Your task to perform on an android device: Search for sushi restaurants on Maps Image 0: 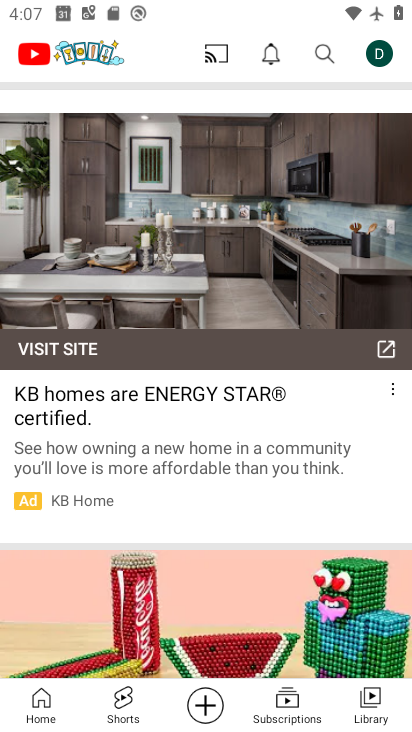
Step 0: press home button
Your task to perform on an android device: Search for sushi restaurants on Maps Image 1: 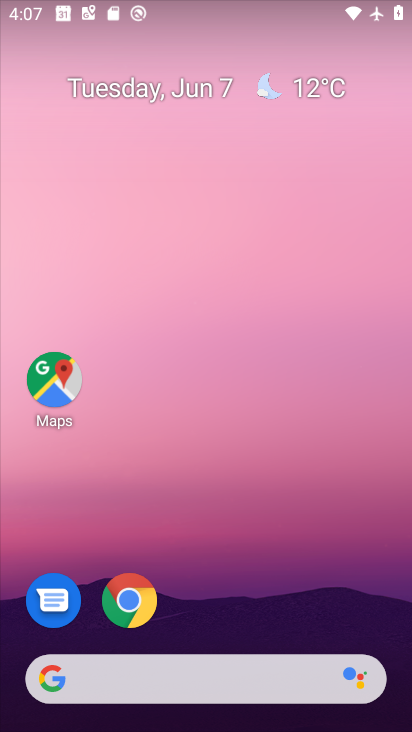
Step 1: click (48, 391)
Your task to perform on an android device: Search for sushi restaurants on Maps Image 2: 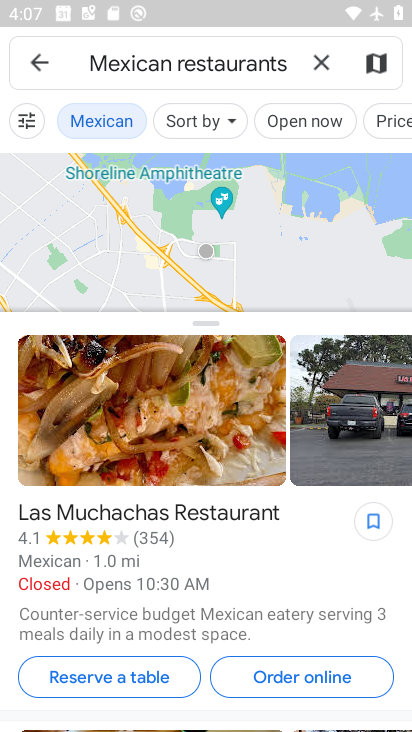
Step 2: click (328, 60)
Your task to perform on an android device: Search for sushi restaurants on Maps Image 3: 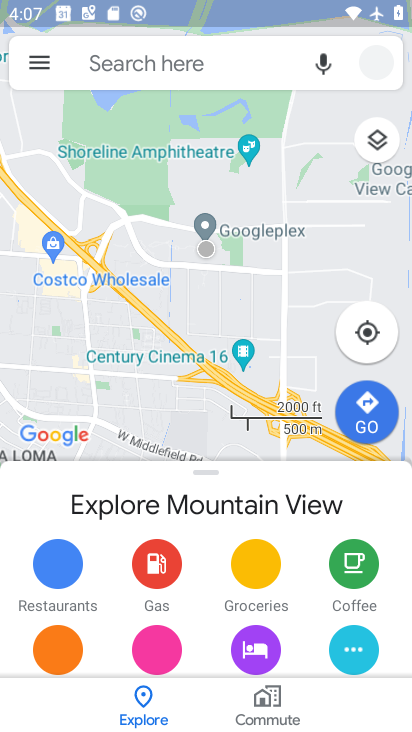
Step 3: click (290, 63)
Your task to perform on an android device: Search for sushi restaurants on Maps Image 4: 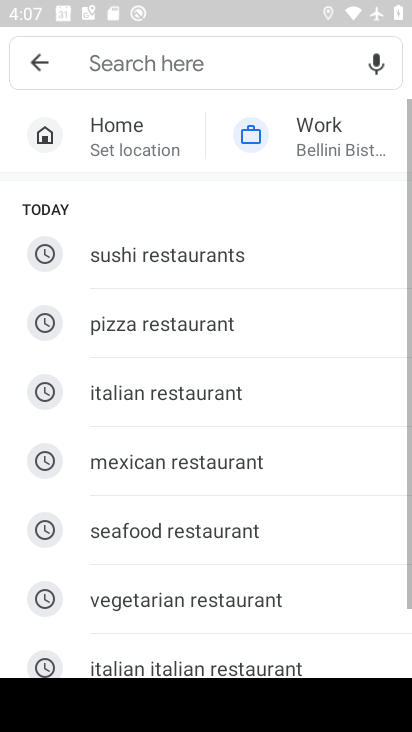
Step 4: click (244, 251)
Your task to perform on an android device: Search for sushi restaurants on Maps Image 5: 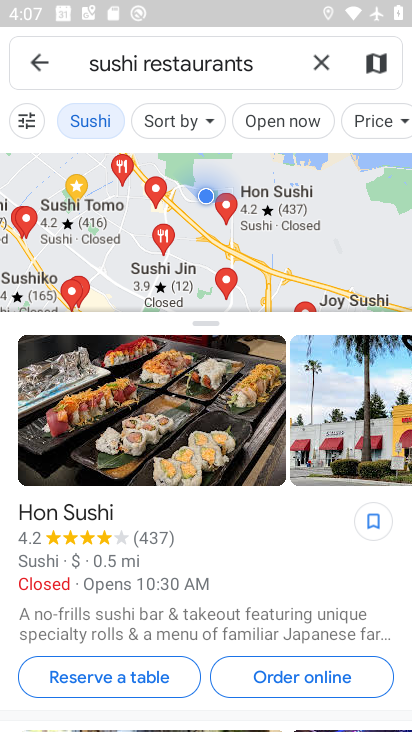
Step 5: task complete